Your task to perform on an android device: empty trash in the gmail app Image 0: 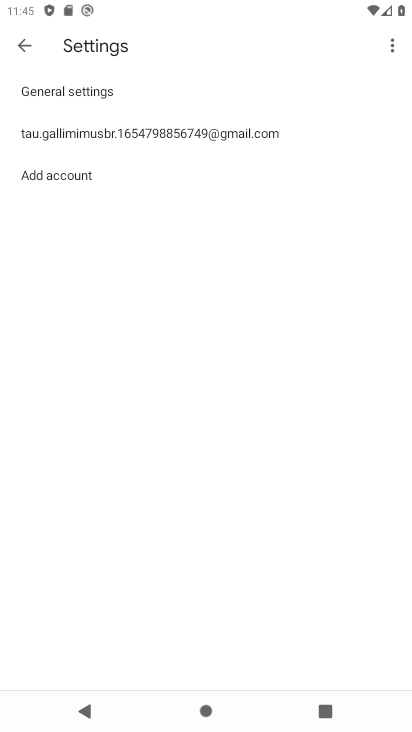
Step 0: drag from (354, 580) to (350, 414)
Your task to perform on an android device: empty trash in the gmail app Image 1: 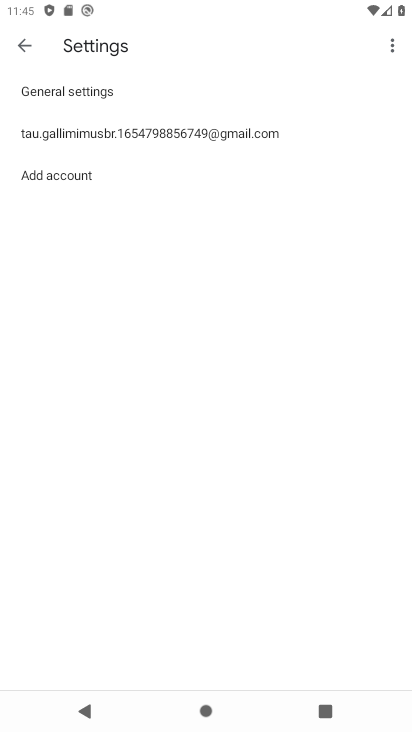
Step 1: press home button
Your task to perform on an android device: empty trash in the gmail app Image 2: 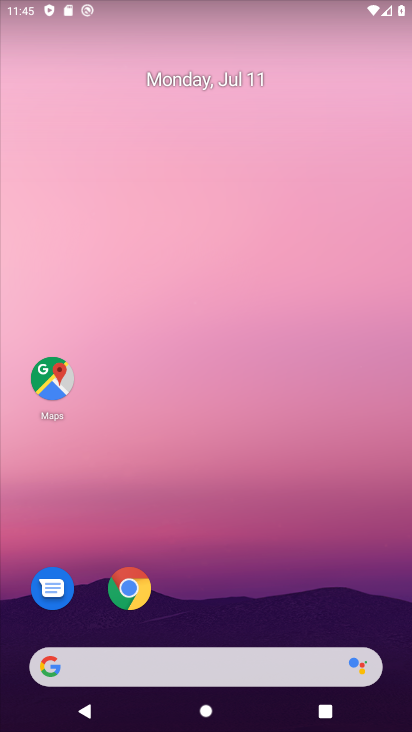
Step 2: drag from (365, 586) to (193, 145)
Your task to perform on an android device: empty trash in the gmail app Image 3: 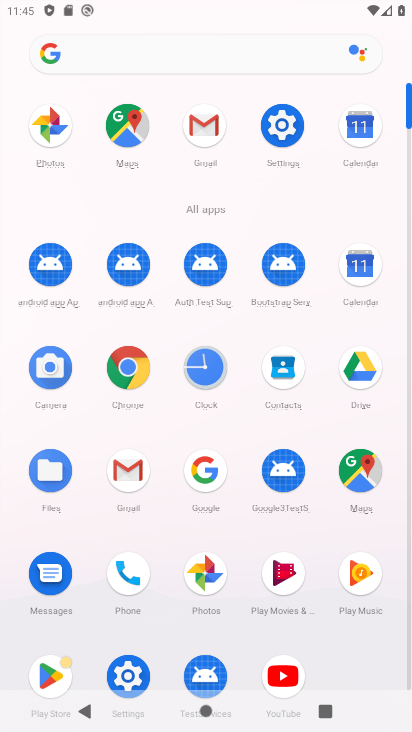
Step 3: click (200, 124)
Your task to perform on an android device: empty trash in the gmail app Image 4: 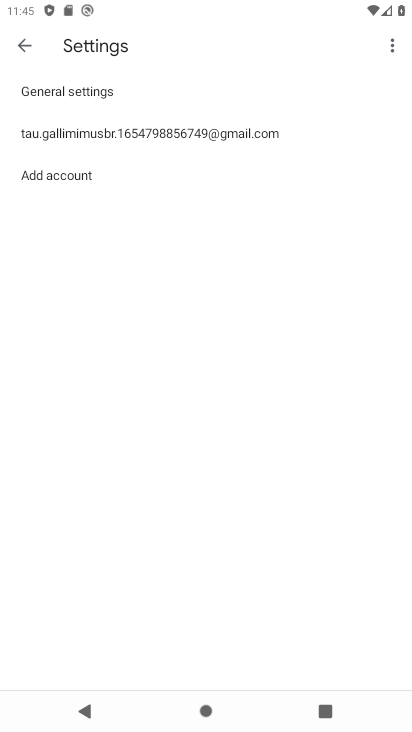
Step 4: click (20, 40)
Your task to perform on an android device: empty trash in the gmail app Image 5: 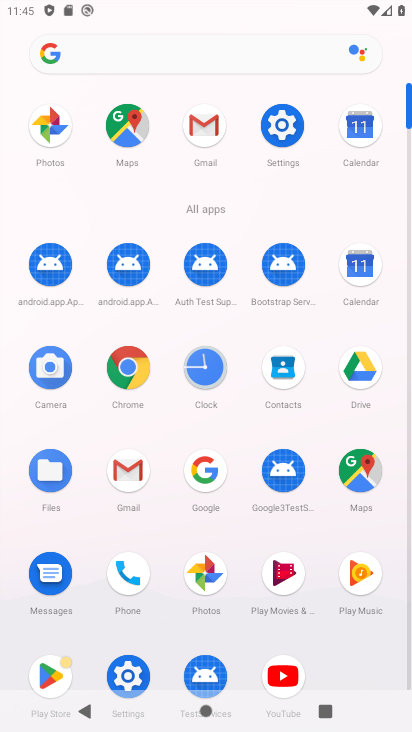
Step 5: click (138, 471)
Your task to perform on an android device: empty trash in the gmail app Image 6: 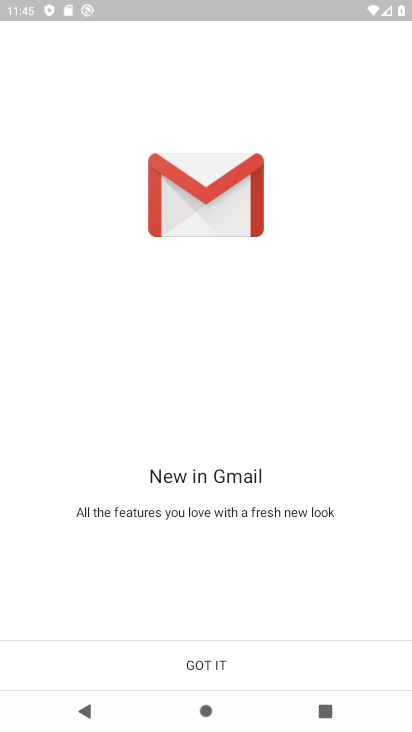
Step 6: click (220, 677)
Your task to perform on an android device: empty trash in the gmail app Image 7: 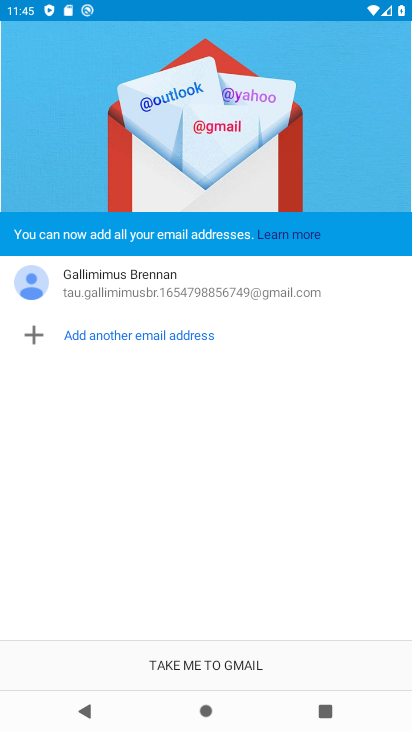
Step 7: click (222, 663)
Your task to perform on an android device: empty trash in the gmail app Image 8: 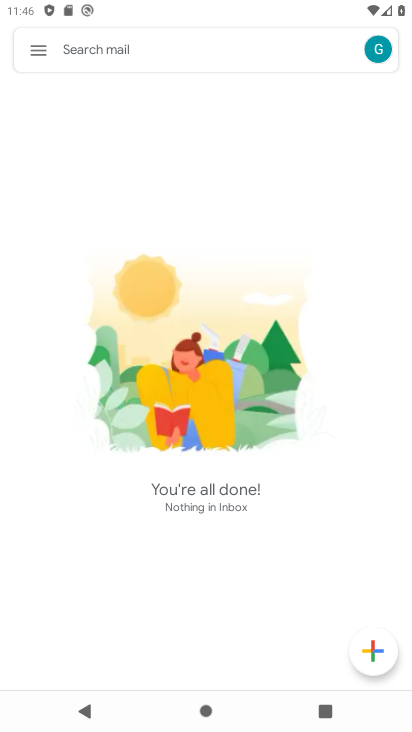
Step 8: click (36, 46)
Your task to perform on an android device: empty trash in the gmail app Image 9: 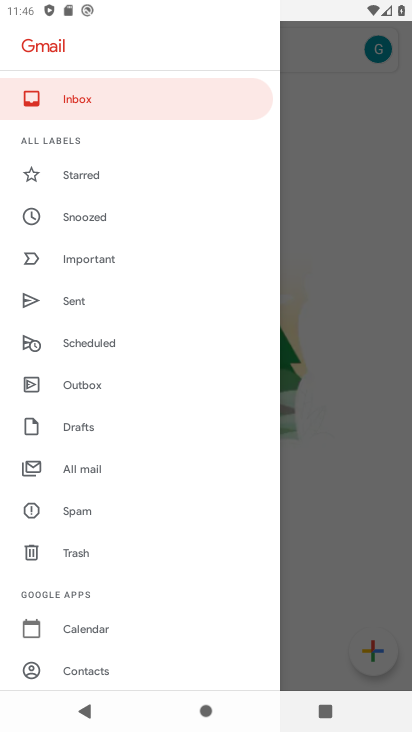
Step 9: click (83, 550)
Your task to perform on an android device: empty trash in the gmail app Image 10: 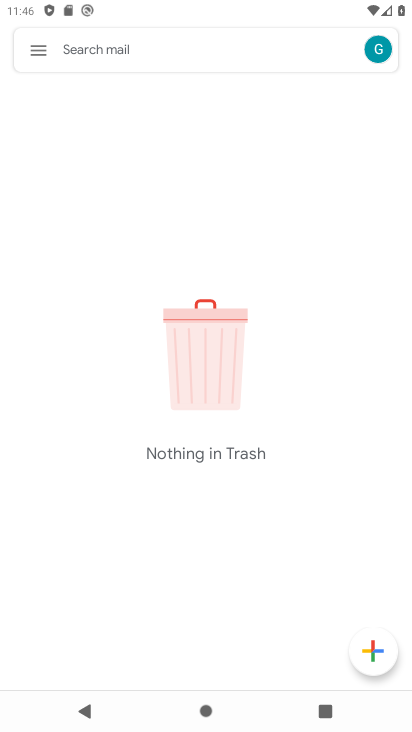
Step 10: task complete